Your task to perform on an android device: allow cookies in the chrome app Image 0: 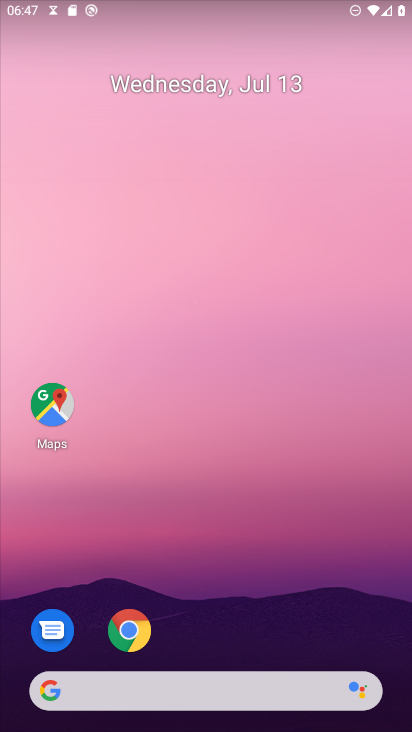
Step 0: drag from (313, 654) to (394, 1)
Your task to perform on an android device: allow cookies in the chrome app Image 1: 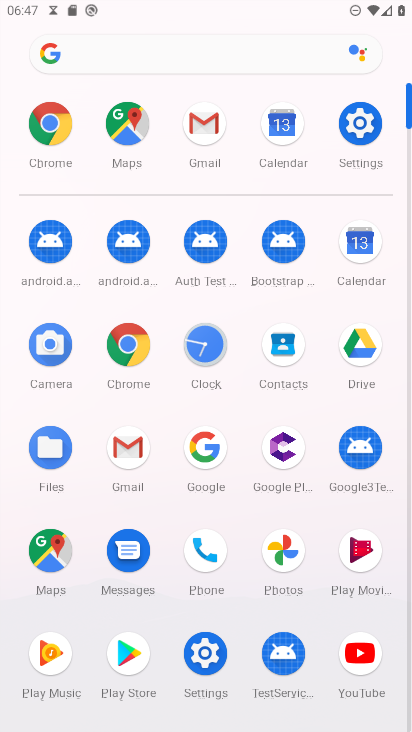
Step 1: click (139, 339)
Your task to perform on an android device: allow cookies in the chrome app Image 2: 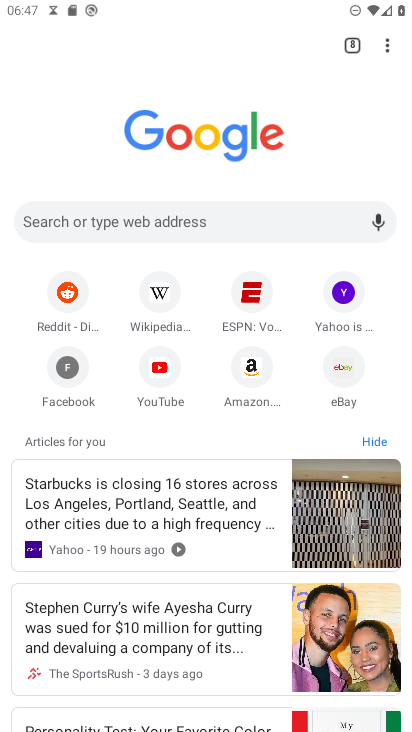
Step 2: drag from (383, 41) to (247, 383)
Your task to perform on an android device: allow cookies in the chrome app Image 3: 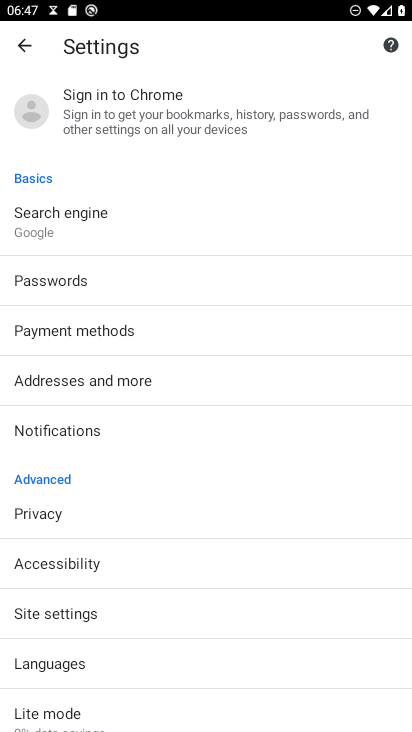
Step 3: click (51, 601)
Your task to perform on an android device: allow cookies in the chrome app Image 4: 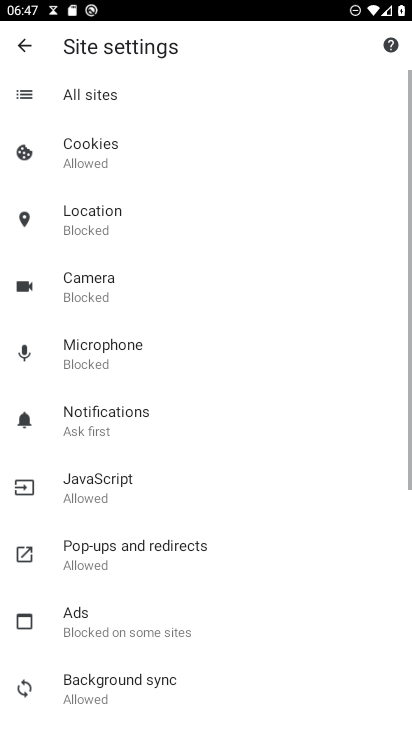
Step 4: click (90, 144)
Your task to perform on an android device: allow cookies in the chrome app Image 5: 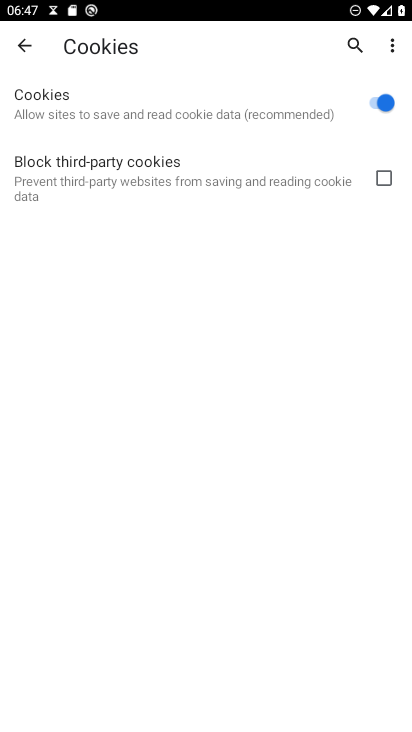
Step 5: task complete